Your task to perform on an android device: Is it going to rain today? Image 0: 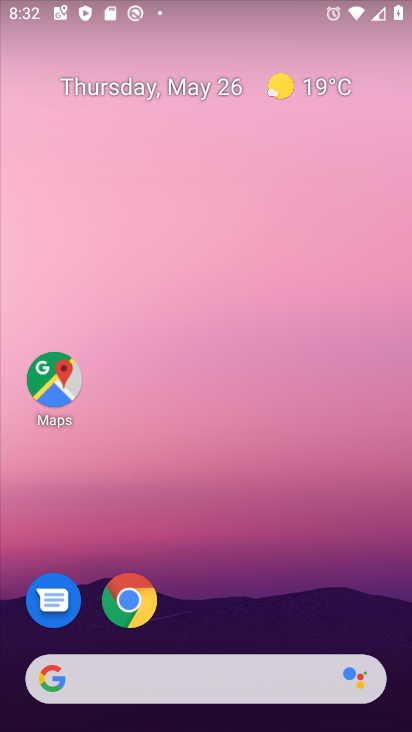
Step 0: press home button
Your task to perform on an android device: Is it going to rain today? Image 1: 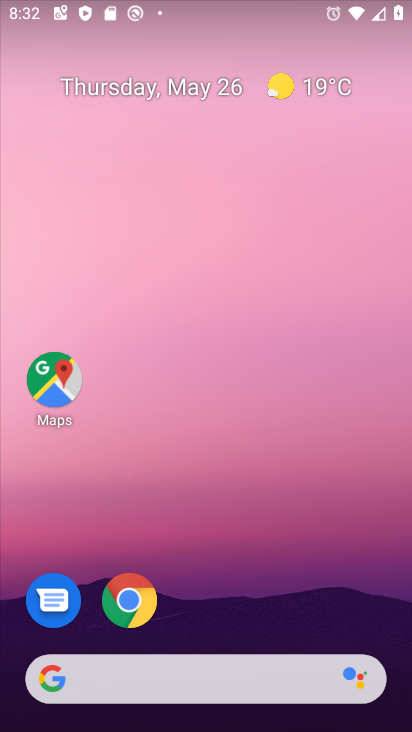
Step 1: click (50, 685)
Your task to perform on an android device: Is it going to rain today? Image 2: 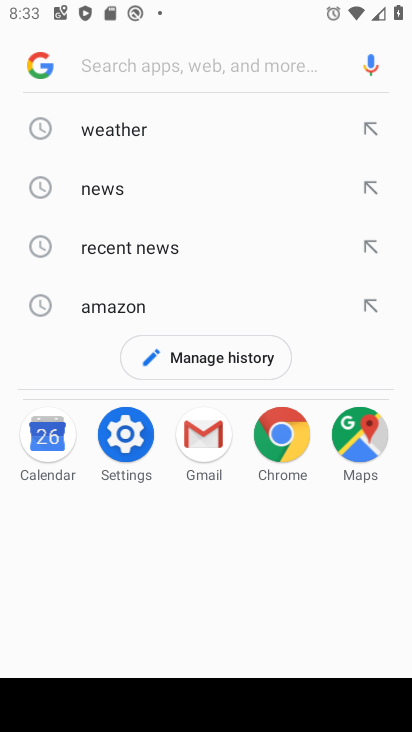
Step 2: type " rain today?"
Your task to perform on an android device: Is it going to rain today? Image 3: 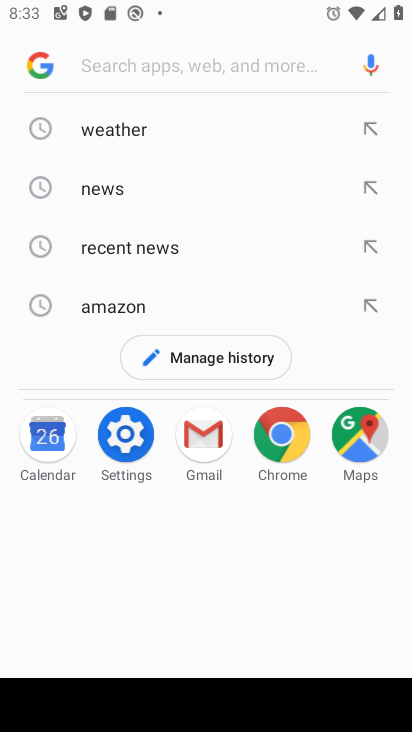
Step 3: click (187, 80)
Your task to perform on an android device: Is it going to rain today? Image 4: 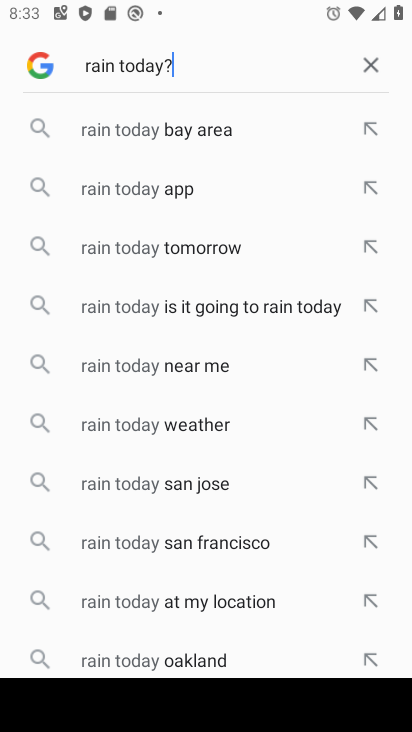
Step 4: click (181, 373)
Your task to perform on an android device: Is it going to rain today? Image 5: 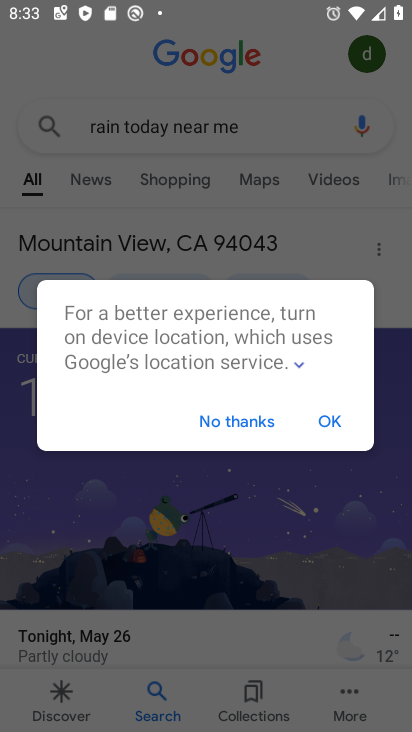
Step 5: task complete